Your task to perform on an android device: Search for seafood restaurants on Google Maps Image 0: 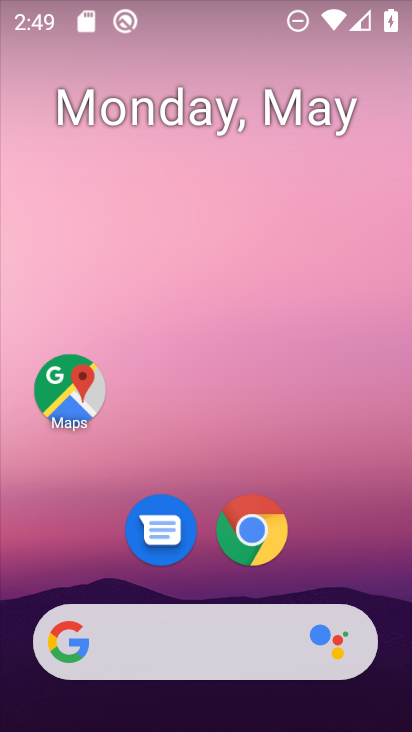
Step 0: click (75, 360)
Your task to perform on an android device: Search for seafood restaurants on Google Maps Image 1: 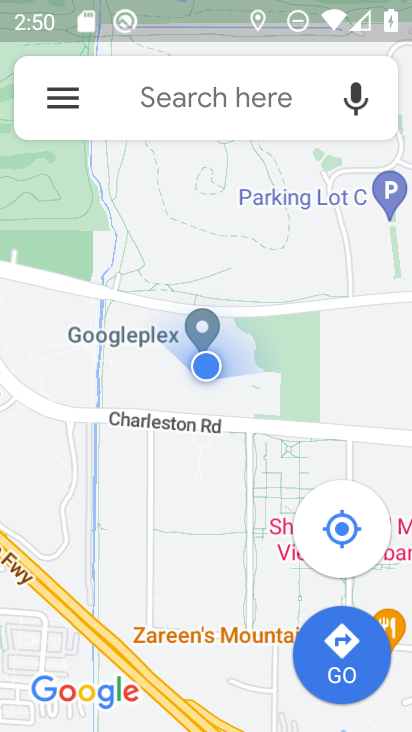
Step 1: click (160, 118)
Your task to perform on an android device: Search for seafood restaurants on Google Maps Image 2: 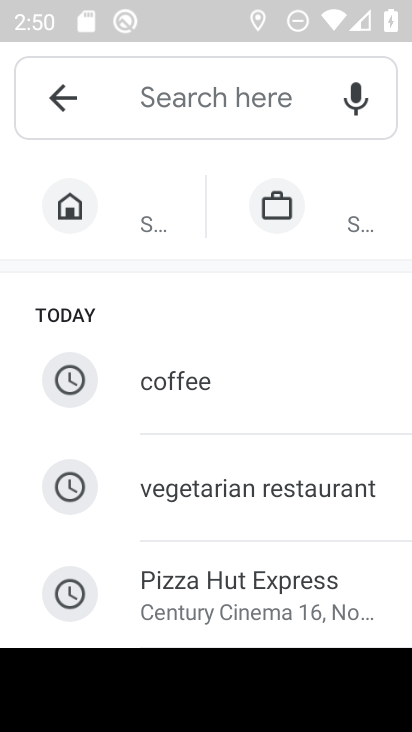
Step 2: drag from (143, 554) to (194, 75)
Your task to perform on an android device: Search for seafood restaurants on Google Maps Image 3: 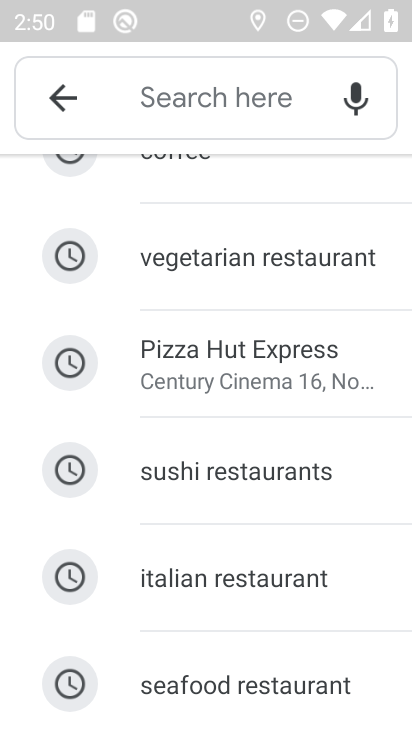
Step 3: click (135, 663)
Your task to perform on an android device: Search for seafood restaurants on Google Maps Image 4: 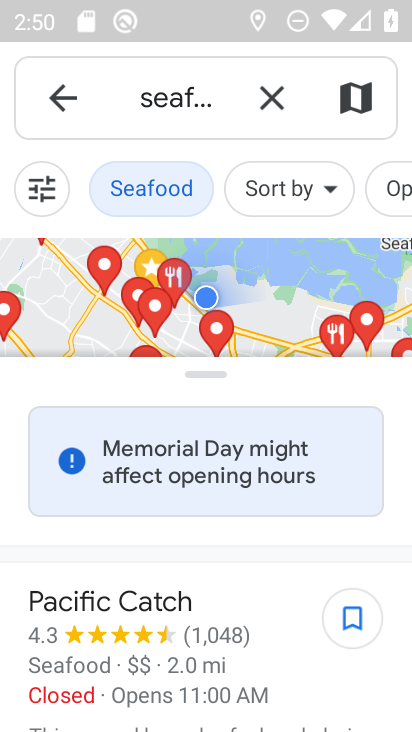
Step 4: task complete